Your task to perform on an android device: Go to Google Image 0: 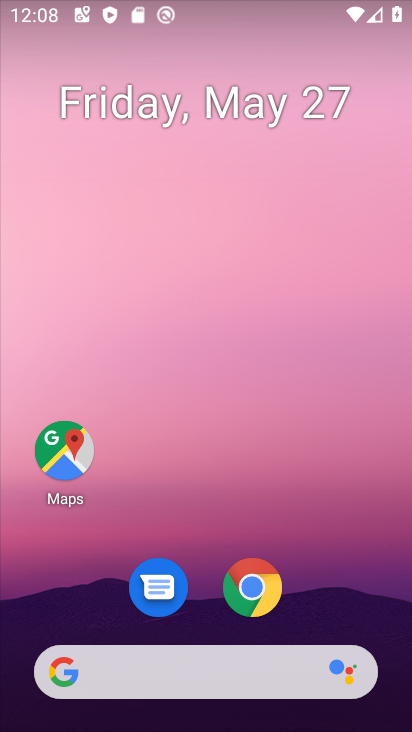
Step 0: drag from (151, 728) to (176, 202)
Your task to perform on an android device: Go to Google Image 1: 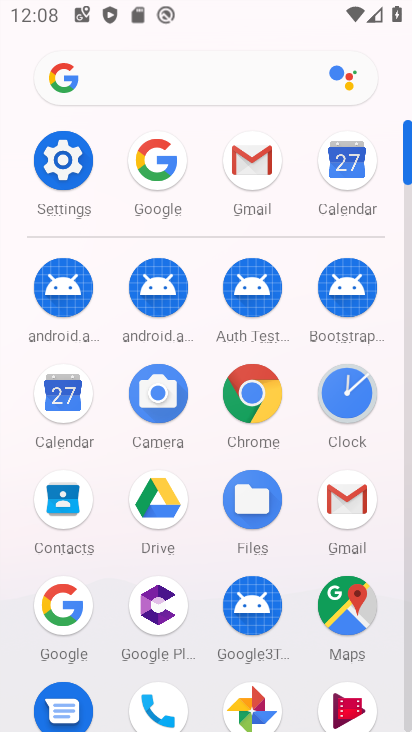
Step 1: click (73, 620)
Your task to perform on an android device: Go to Google Image 2: 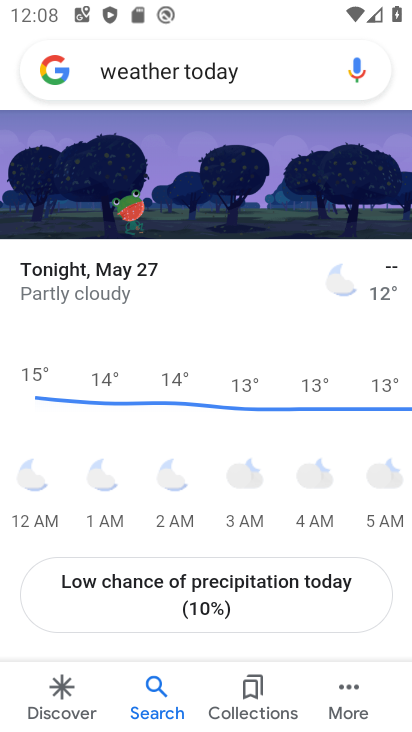
Step 2: task complete